Your task to perform on an android device: Go to notification settings Image 0: 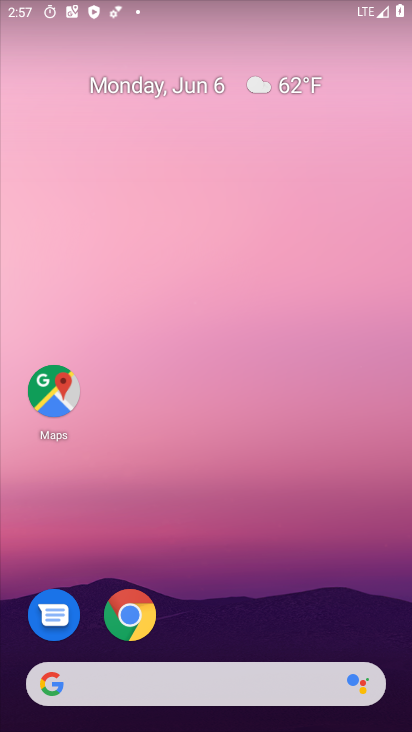
Step 0: drag from (190, 683) to (245, 26)
Your task to perform on an android device: Go to notification settings Image 1: 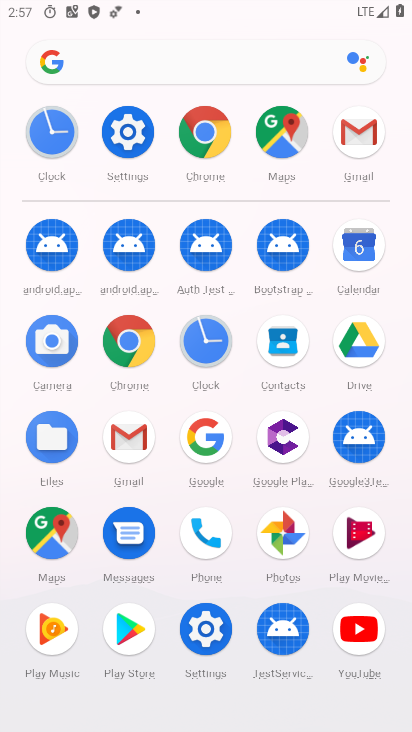
Step 1: click (120, 134)
Your task to perform on an android device: Go to notification settings Image 2: 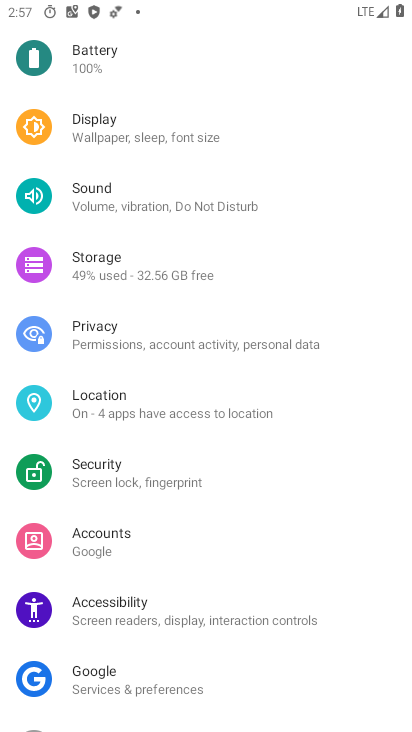
Step 2: drag from (144, 222) to (153, 594)
Your task to perform on an android device: Go to notification settings Image 3: 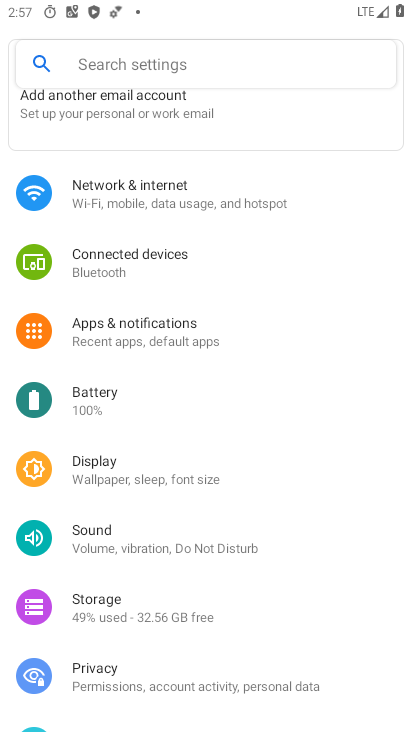
Step 3: click (173, 339)
Your task to perform on an android device: Go to notification settings Image 4: 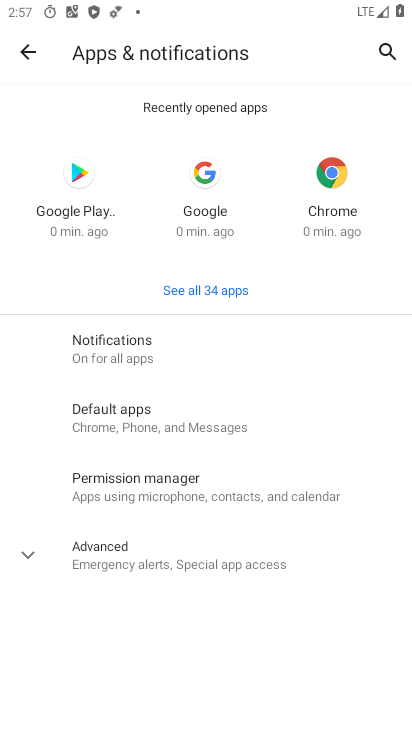
Step 4: task complete